Your task to perform on an android device: Add "apple airpods pro" to the cart on walmart Image 0: 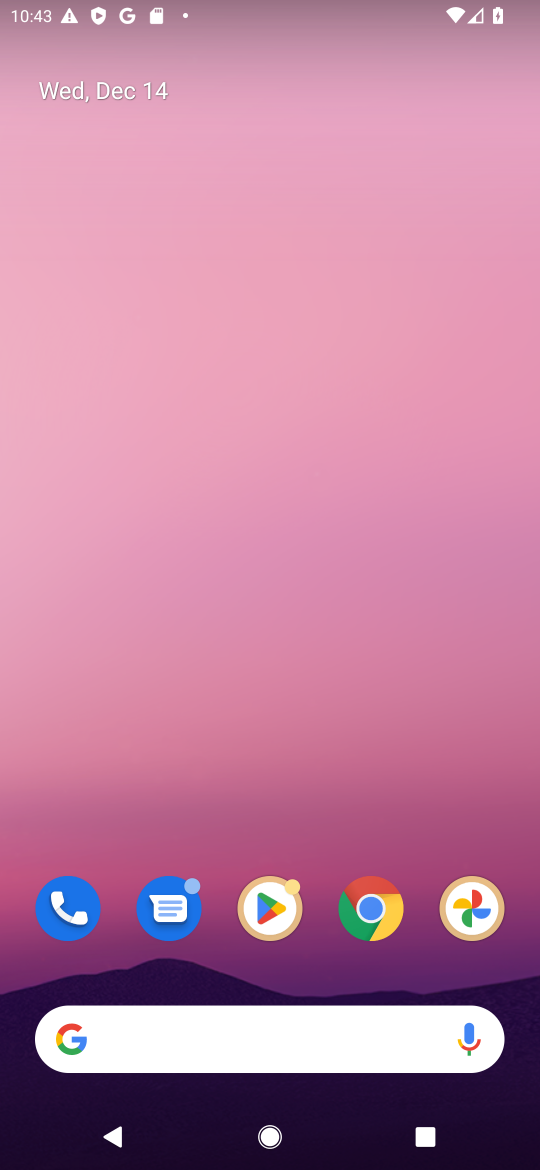
Step 0: click (364, 915)
Your task to perform on an android device: Add "apple airpods pro" to the cart on walmart Image 1: 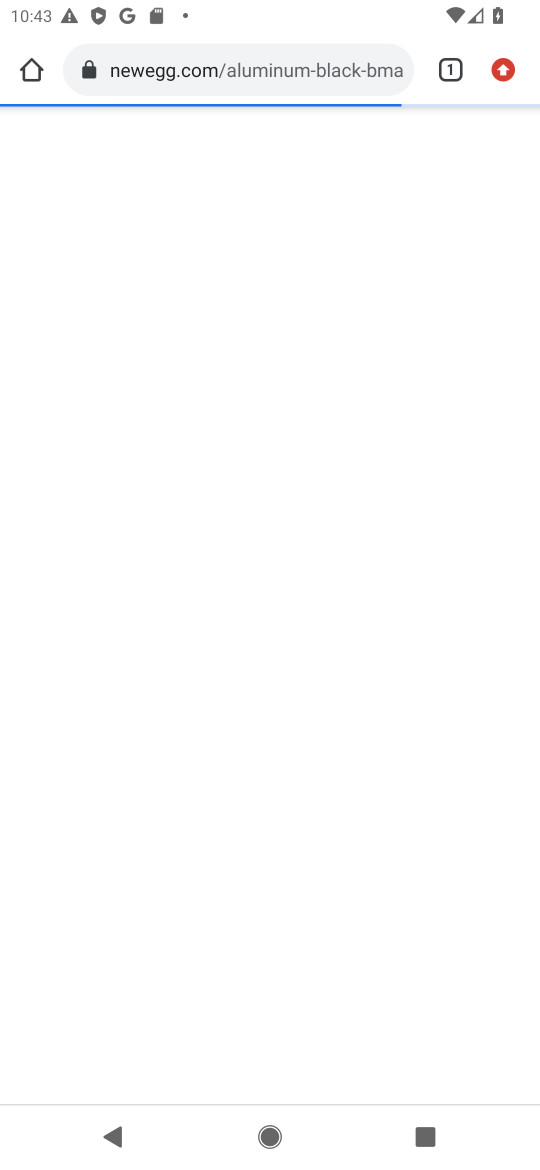
Step 1: click (233, 86)
Your task to perform on an android device: Add "apple airpods pro" to the cart on walmart Image 2: 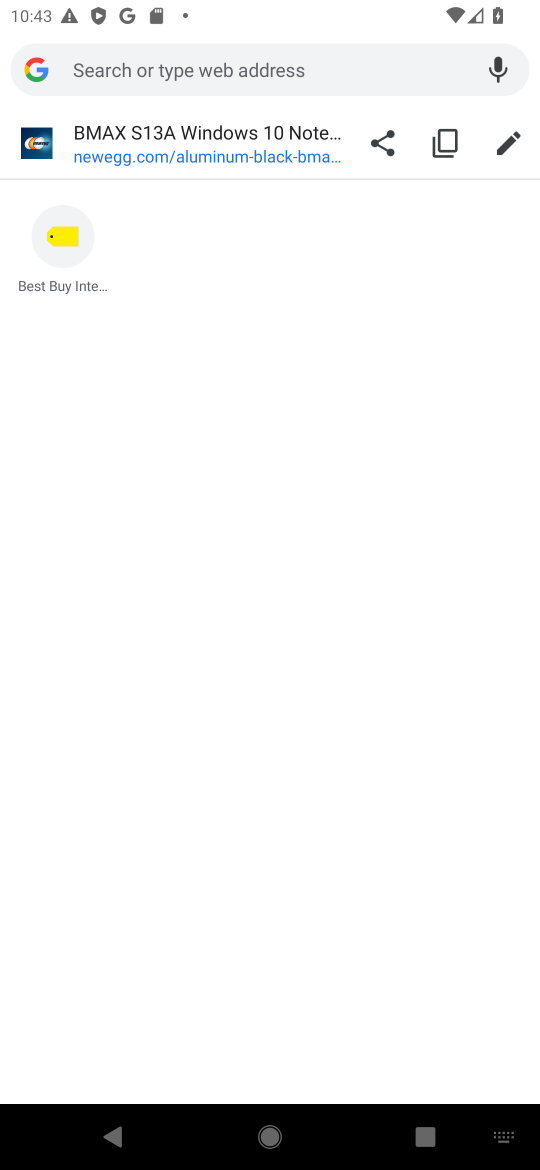
Step 2: type "walmart"
Your task to perform on an android device: Add "apple airpods pro" to the cart on walmart Image 3: 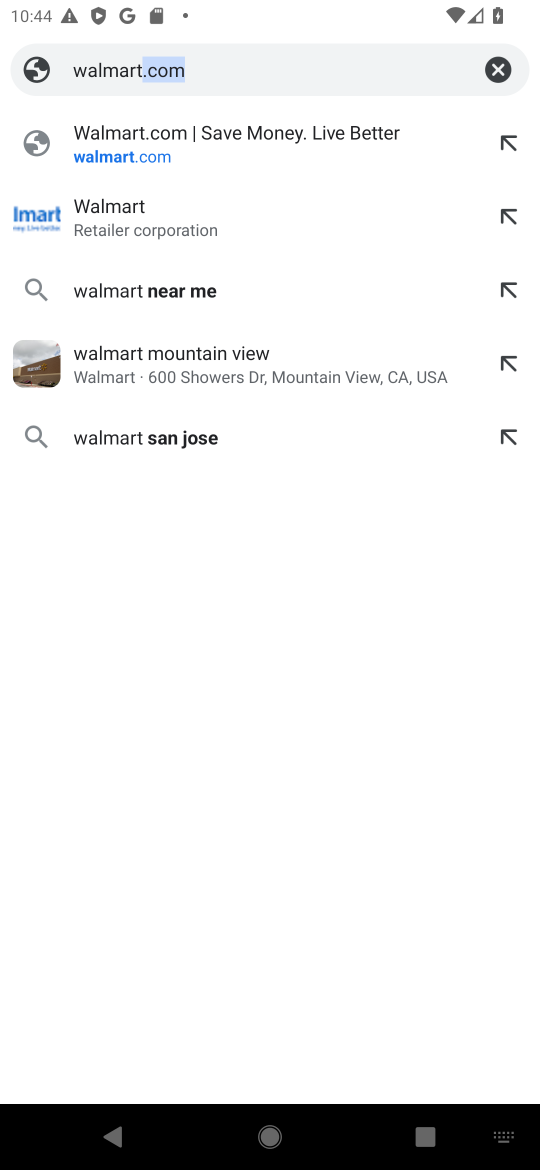
Step 3: click (123, 154)
Your task to perform on an android device: Add "apple airpods pro" to the cart on walmart Image 4: 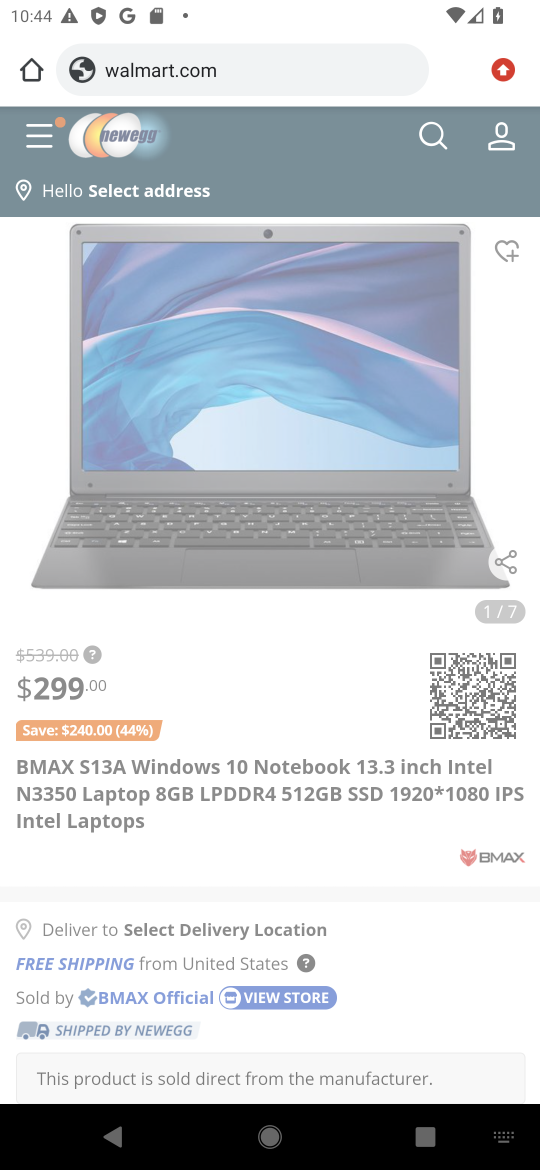
Step 4: task complete